Your task to perform on an android device: turn off javascript in the chrome app Image 0: 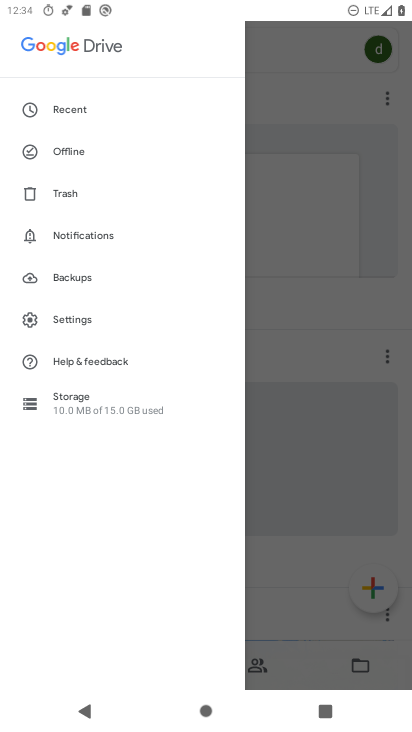
Step 0: press home button
Your task to perform on an android device: turn off javascript in the chrome app Image 1: 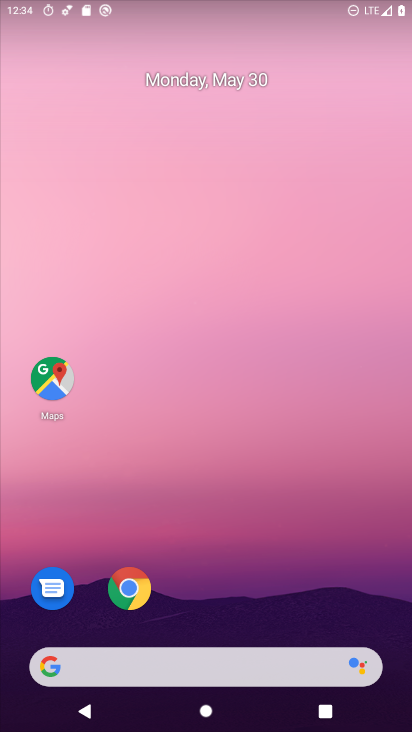
Step 1: drag from (297, 544) to (289, 95)
Your task to perform on an android device: turn off javascript in the chrome app Image 2: 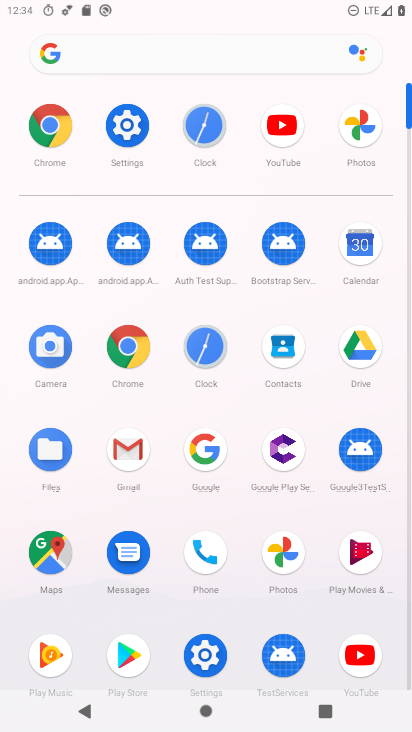
Step 2: click (211, 649)
Your task to perform on an android device: turn off javascript in the chrome app Image 3: 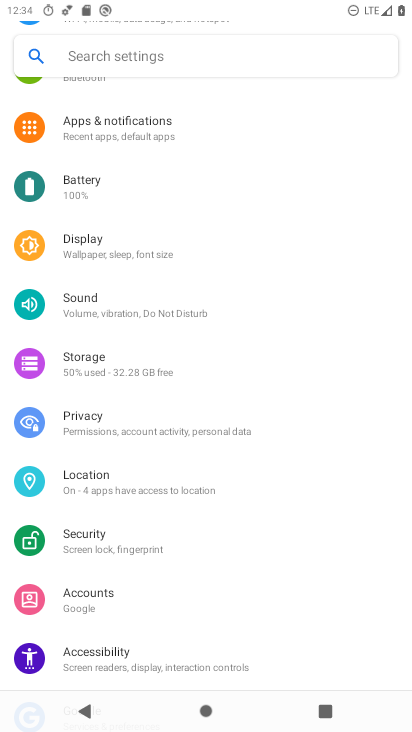
Step 3: press home button
Your task to perform on an android device: turn off javascript in the chrome app Image 4: 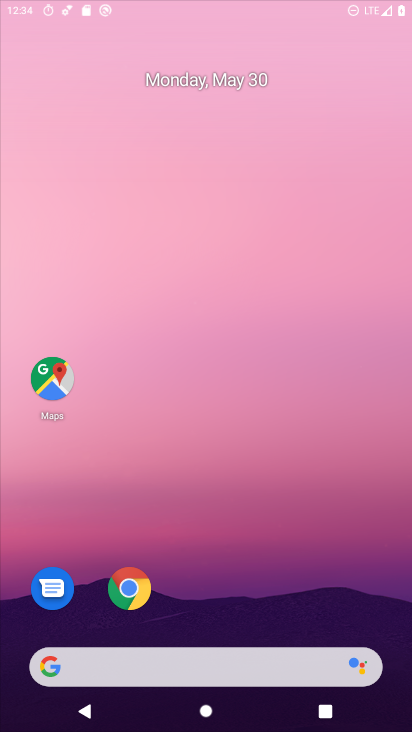
Step 4: drag from (265, 535) to (235, 84)
Your task to perform on an android device: turn off javascript in the chrome app Image 5: 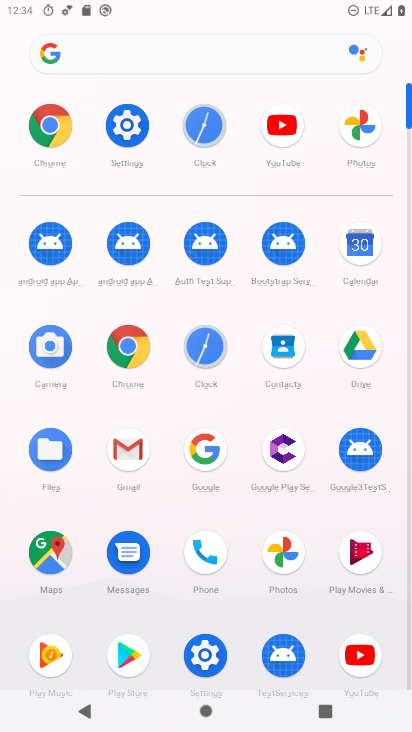
Step 5: click (128, 361)
Your task to perform on an android device: turn off javascript in the chrome app Image 6: 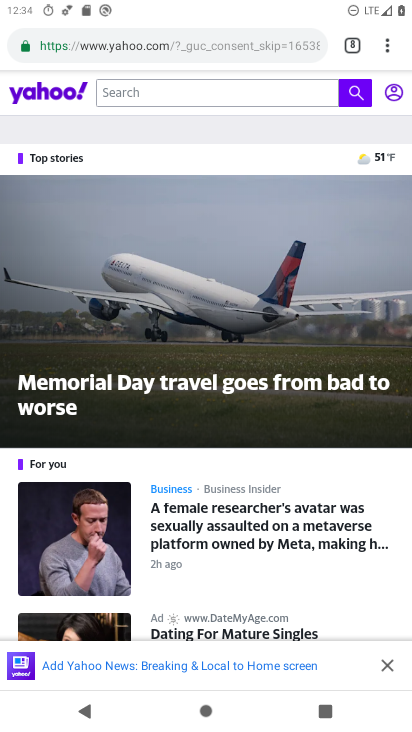
Step 6: click (388, 46)
Your task to perform on an android device: turn off javascript in the chrome app Image 7: 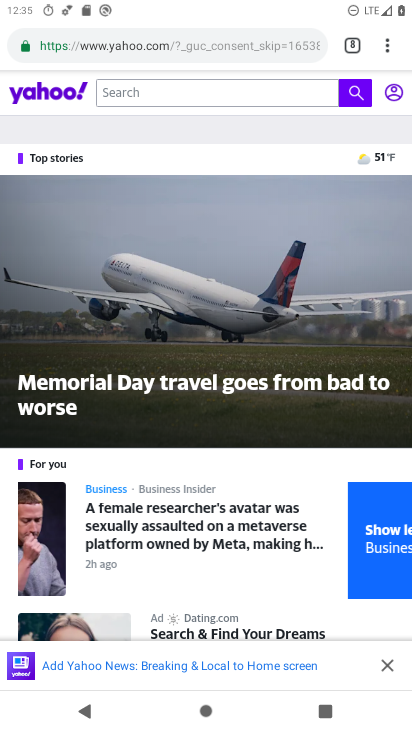
Step 7: click (384, 51)
Your task to perform on an android device: turn off javascript in the chrome app Image 8: 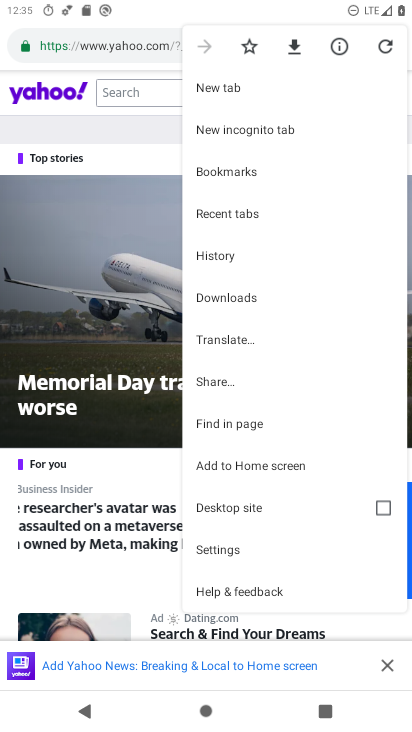
Step 8: click (259, 553)
Your task to perform on an android device: turn off javascript in the chrome app Image 9: 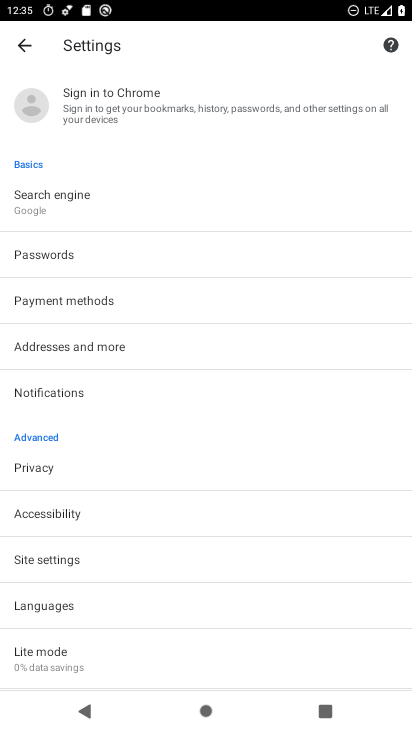
Step 9: drag from (182, 566) to (203, 276)
Your task to perform on an android device: turn off javascript in the chrome app Image 10: 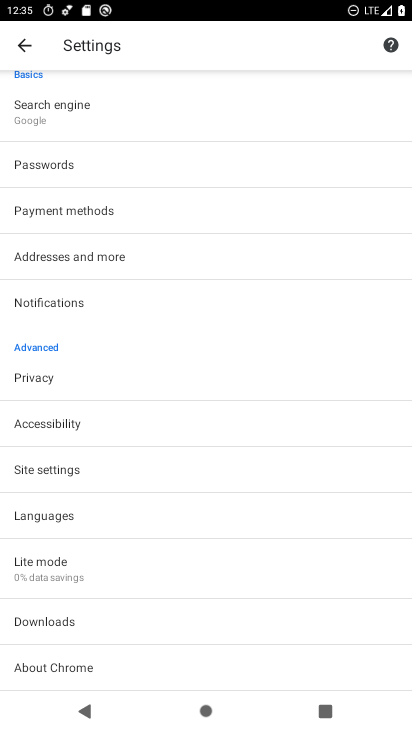
Step 10: click (107, 475)
Your task to perform on an android device: turn off javascript in the chrome app Image 11: 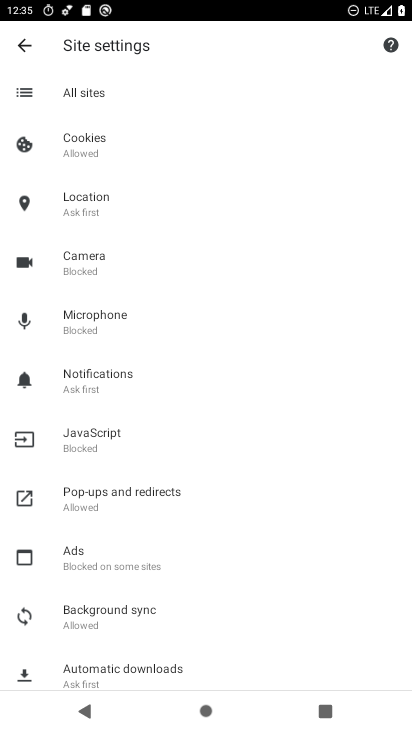
Step 11: click (138, 450)
Your task to perform on an android device: turn off javascript in the chrome app Image 12: 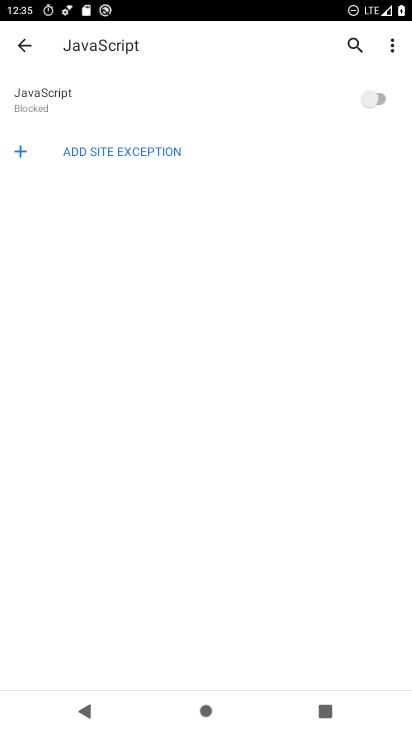
Step 12: task complete